Your task to perform on an android device: Is it going to rain this weekend? Image 0: 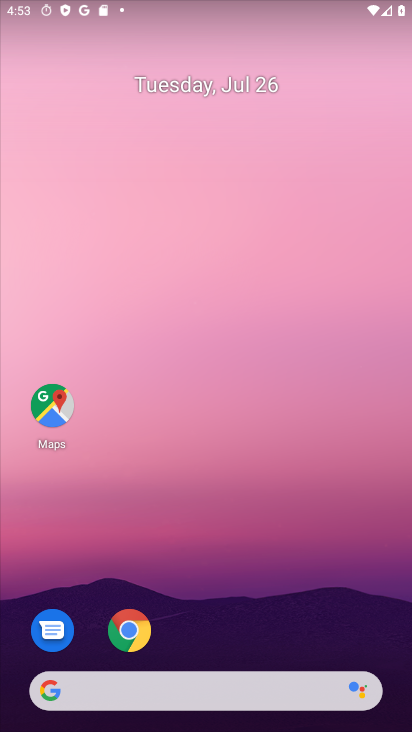
Step 0: drag from (259, 606) to (222, 115)
Your task to perform on an android device: Is it going to rain this weekend? Image 1: 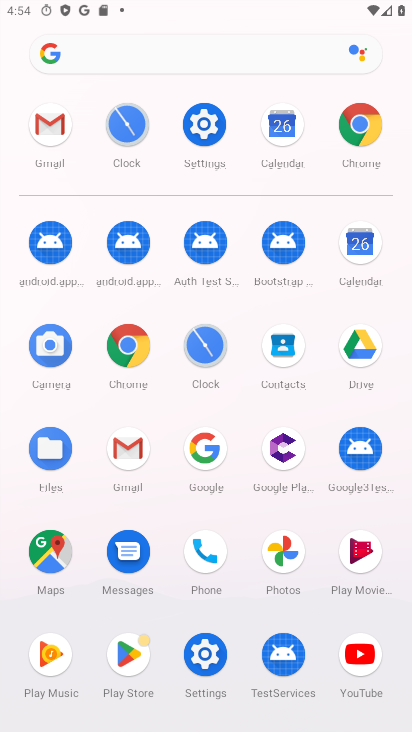
Step 1: click (358, 121)
Your task to perform on an android device: Is it going to rain this weekend? Image 2: 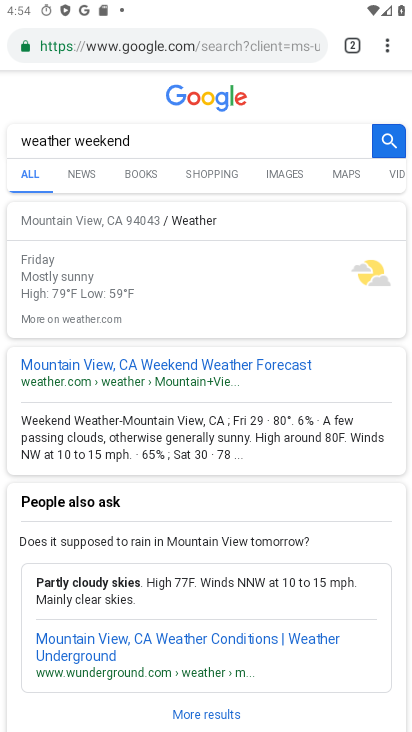
Step 2: task complete